Your task to perform on an android device: turn on location history Image 0: 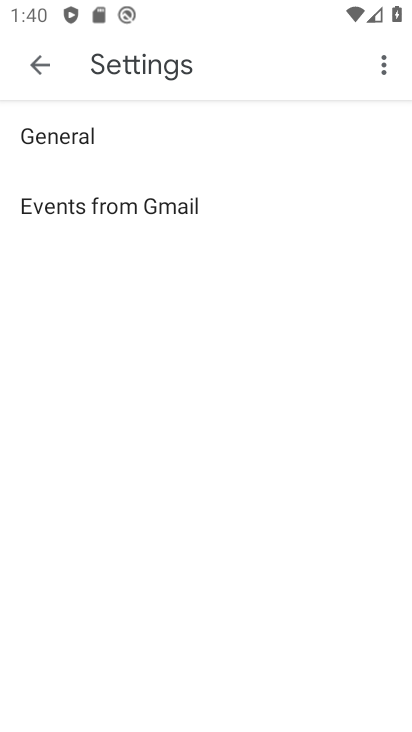
Step 0: press home button
Your task to perform on an android device: turn on location history Image 1: 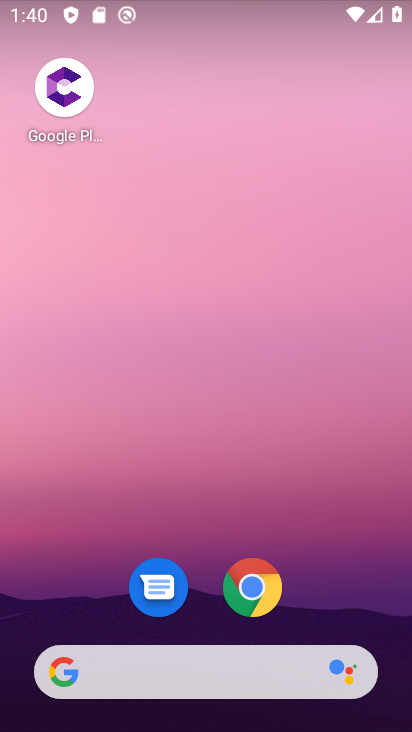
Step 1: drag from (374, 588) to (343, 33)
Your task to perform on an android device: turn on location history Image 2: 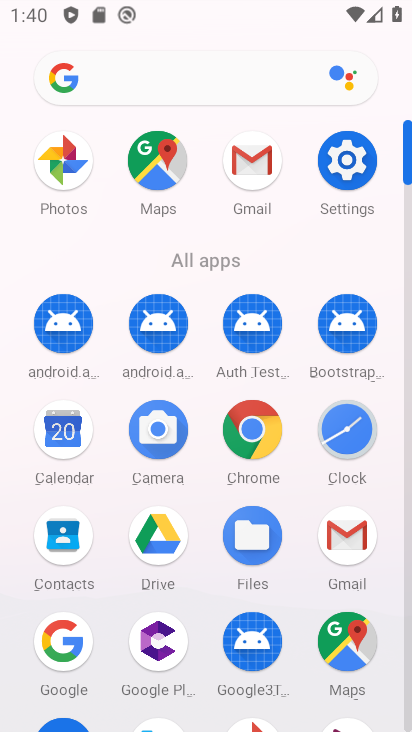
Step 2: click (163, 177)
Your task to perform on an android device: turn on location history Image 3: 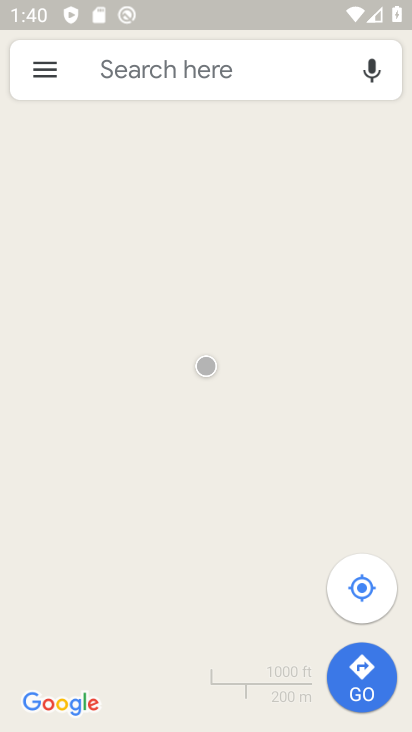
Step 3: click (46, 75)
Your task to perform on an android device: turn on location history Image 4: 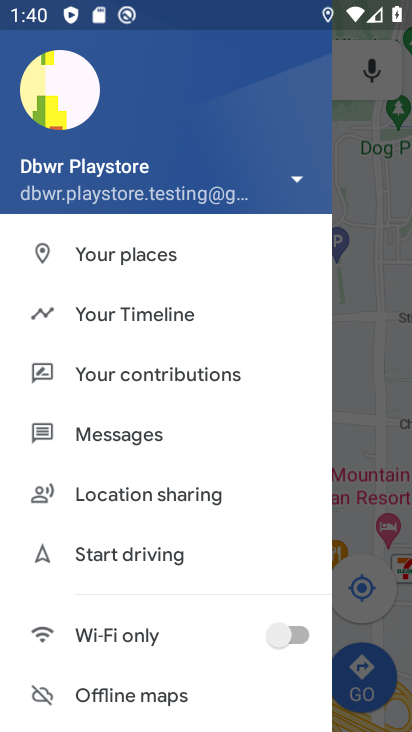
Step 4: click (153, 310)
Your task to perform on an android device: turn on location history Image 5: 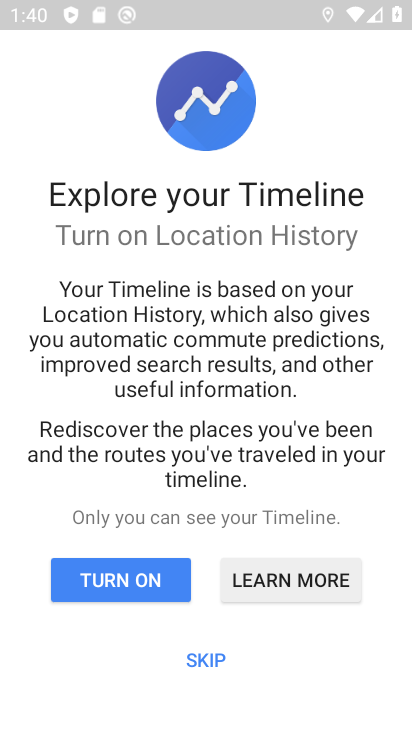
Step 5: click (155, 580)
Your task to perform on an android device: turn on location history Image 6: 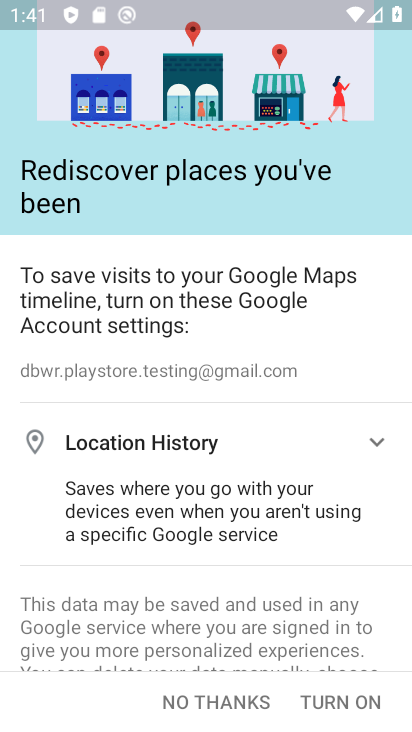
Step 6: drag from (338, 605) to (276, 156)
Your task to perform on an android device: turn on location history Image 7: 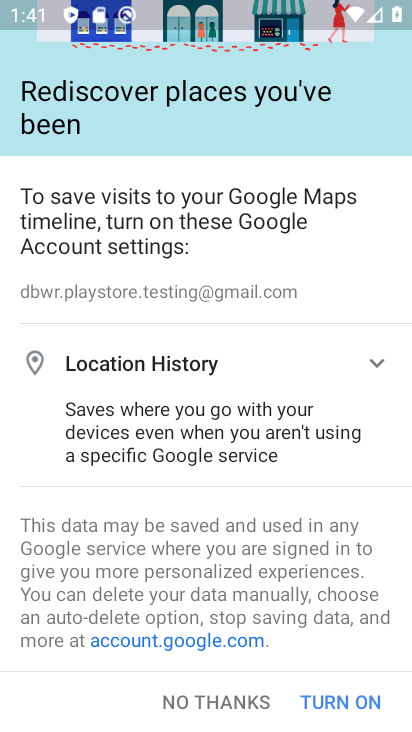
Step 7: click (360, 702)
Your task to perform on an android device: turn on location history Image 8: 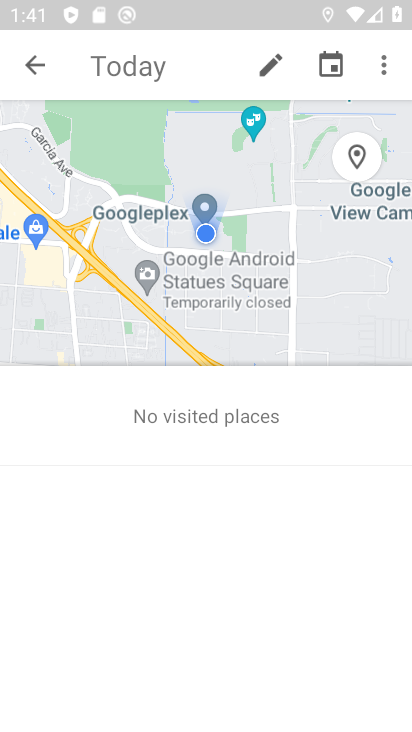
Step 8: task complete